Your task to perform on an android device: Open internet settings Image 0: 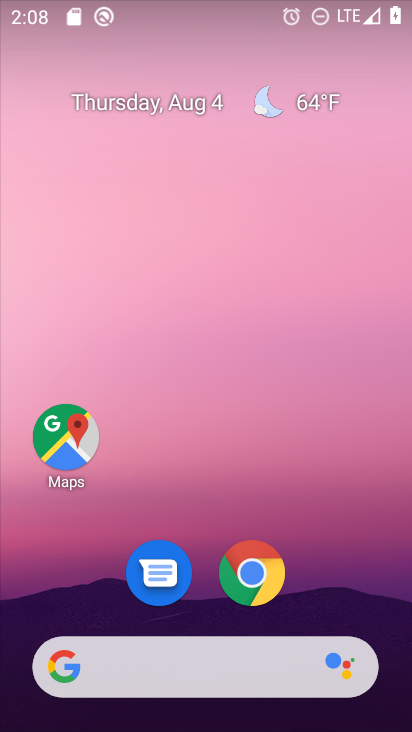
Step 0: drag from (340, 502) to (342, 106)
Your task to perform on an android device: Open internet settings Image 1: 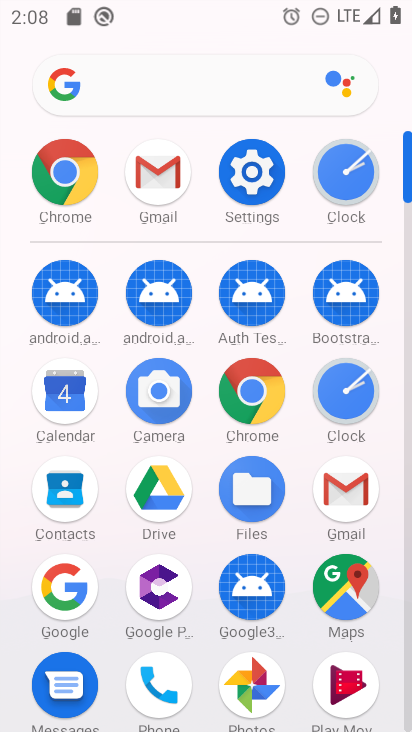
Step 1: click (258, 164)
Your task to perform on an android device: Open internet settings Image 2: 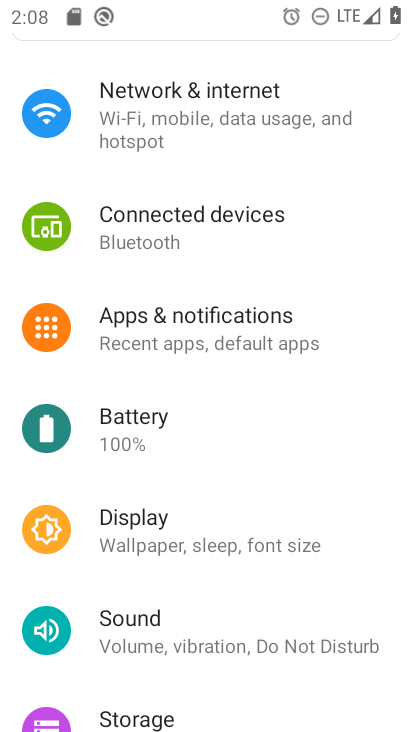
Step 2: click (258, 122)
Your task to perform on an android device: Open internet settings Image 3: 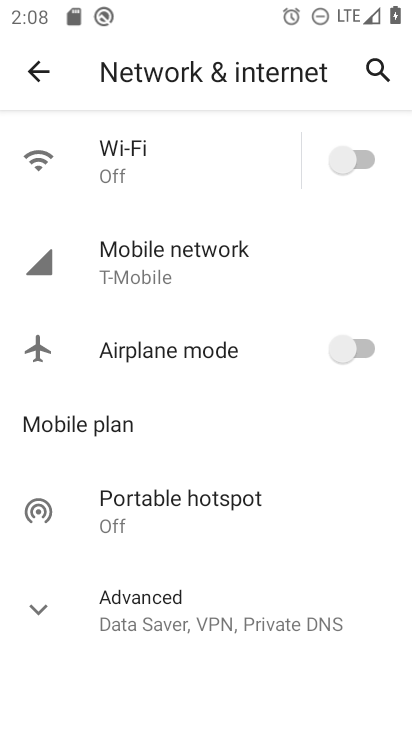
Step 3: click (165, 610)
Your task to perform on an android device: Open internet settings Image 4: 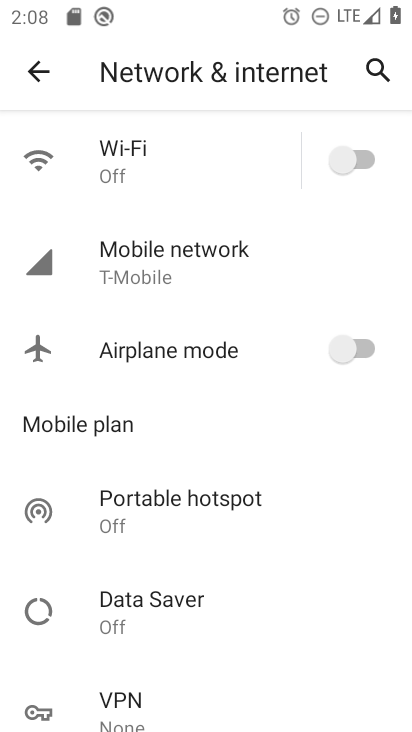
Step 4: task complete